Your task to perform on an android device: Go to Reddit.com Image 0: 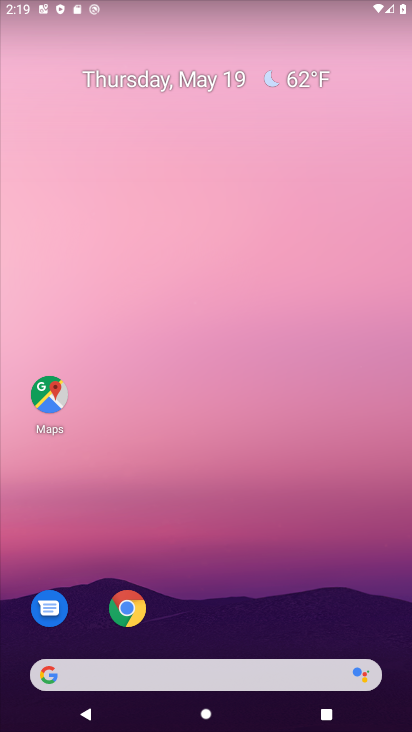
Step 0: drag from (298, 631) to (303, 229)
Your task to perform on an android device: Go to Reddit.com Image 1: 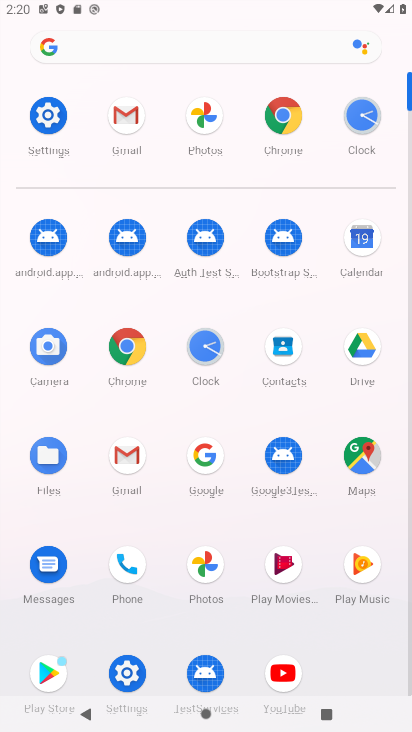
Step 1: click (265, 128)
Your task to perform on an android device: Go to Reddit.com Image 2: 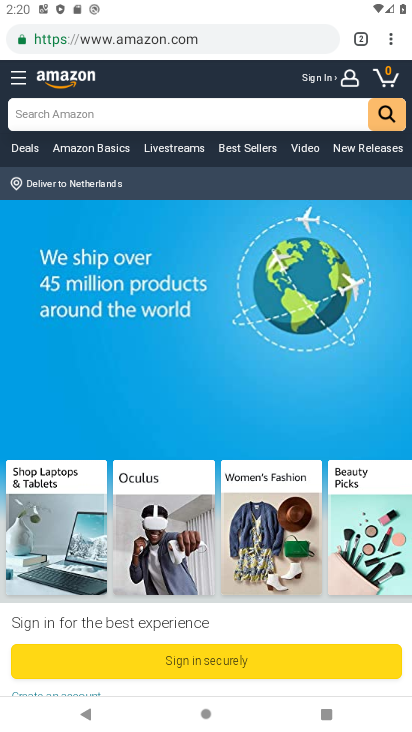
Step 2: click (228, 41)
Your task to perform on an android device: Go to Reddit.com Image 3: 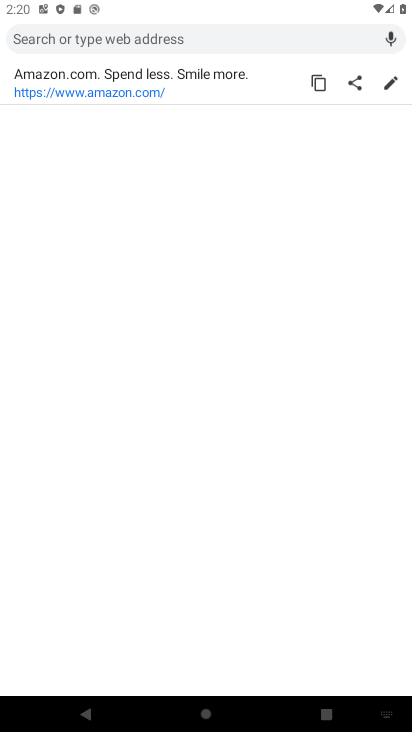
Step 3: type "reddit.com"
Your task to perform on an android device: Go to Reddit.com Image 4: 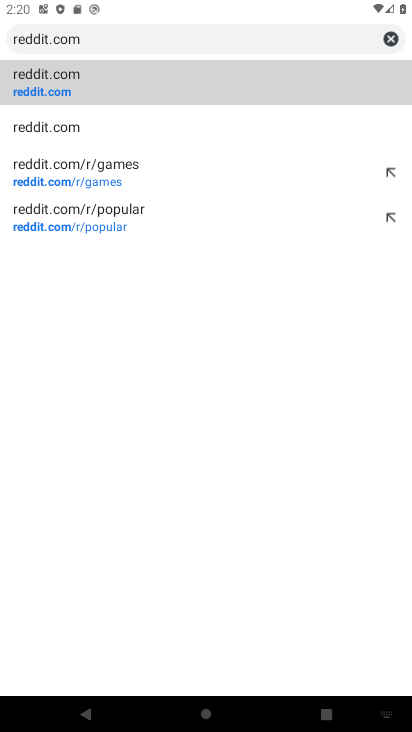
Step 4: click (77, 73)
Your task to perform on an android device: Go to Reddit.com Image 5: 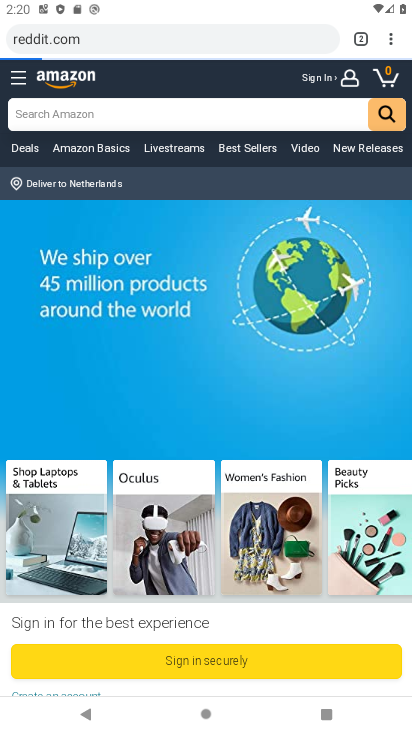
Step 5: task complete